Your task to perform on an android device: How much does a 2 bedroom apartment rent for in Houston? Image 0: 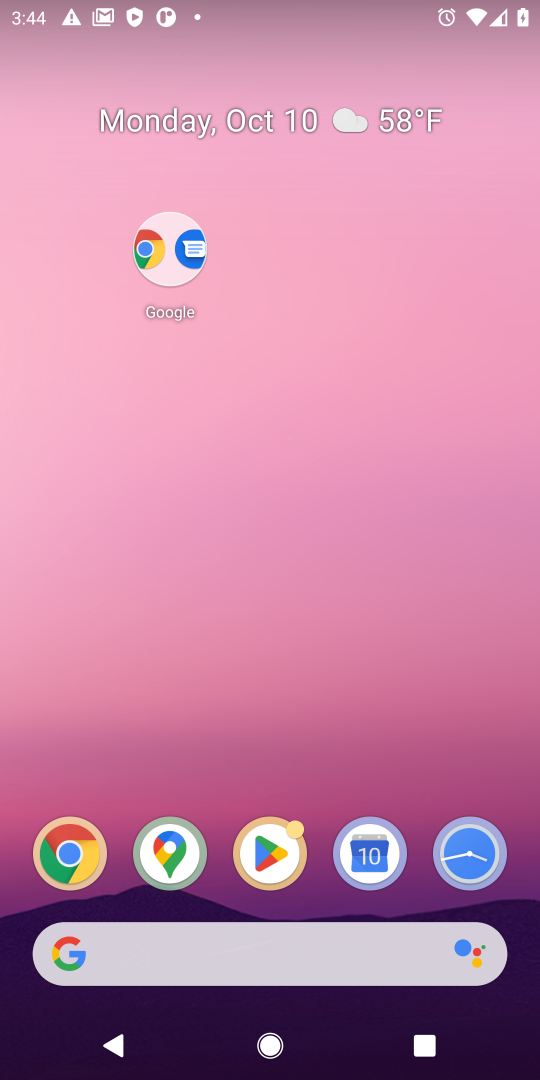
Step 0: click (73, 865)
Your task to perform on an android device: How much does a 2 bedroom apartment rent for in Houston? Image 1: 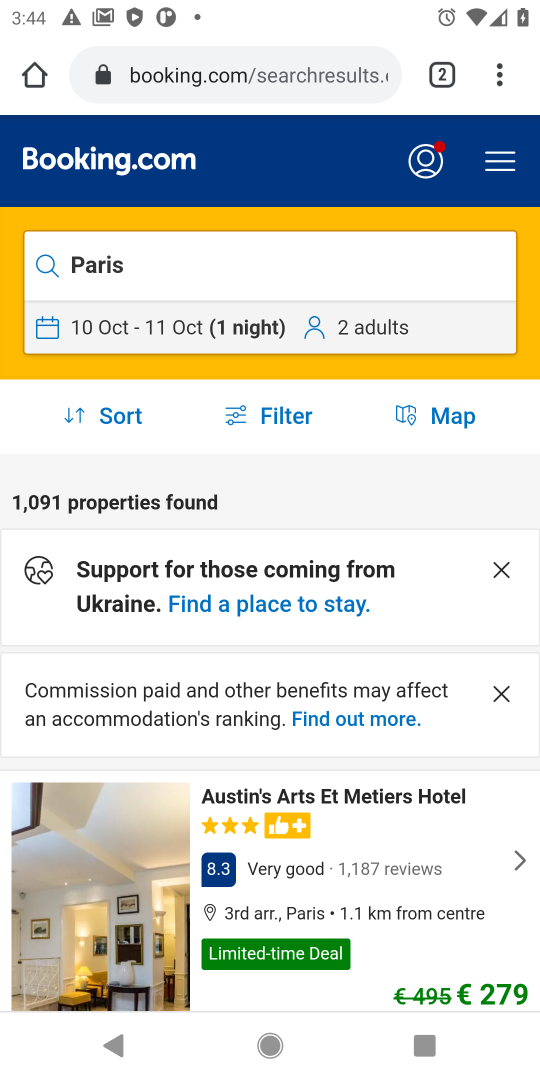
Step 1: type "How much does a 2 bedroom apartment rent for in Houston?"
Your task to perform on an android device: How much does a 2 bedroom apartment rent for in Houston? Image 2: 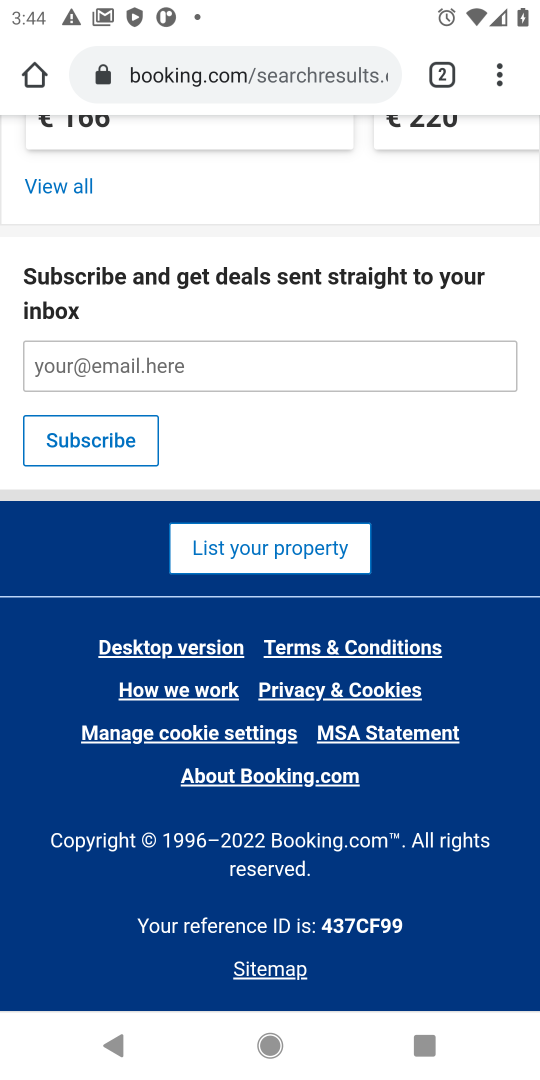
Step 2: click (179, 66)
Your task to perform on an android device: How much does a 2 bedroom apartment rent for in Houston? Image 3: 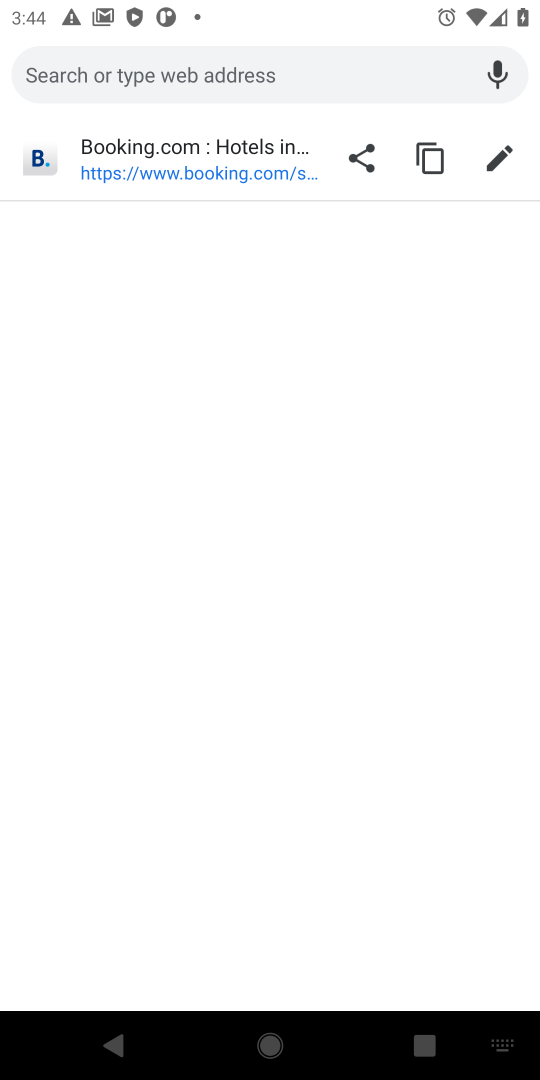
Step 3: type "How much does a 2 bedroom apartment rent for in Houston?"
Your task to perform on an android device: How much does a 2 bedroom apartment rent for in Houston? Image 4: 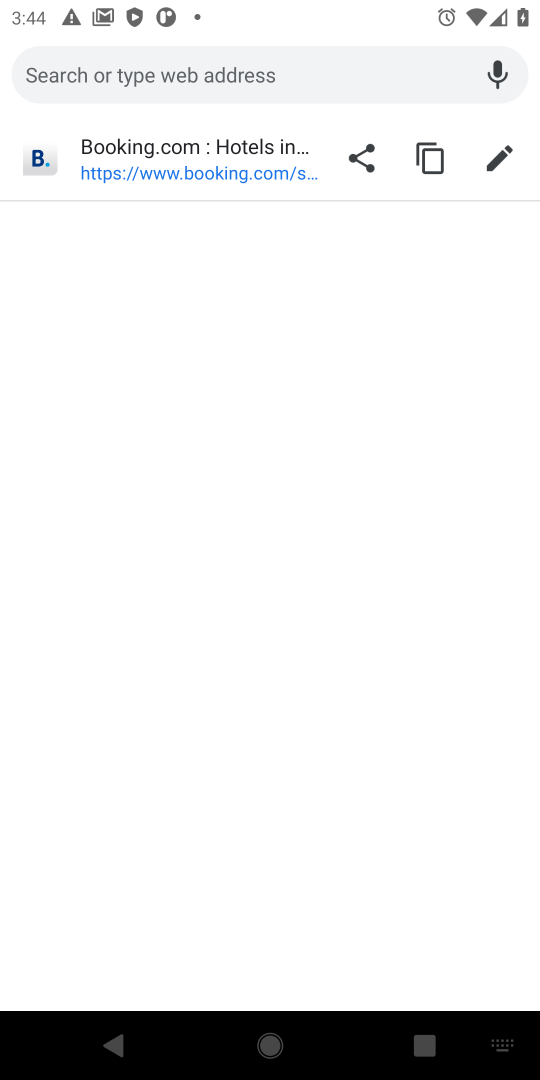
Step 4: click (235, 70)
Your task to perform on an android device: How much does a 2 bedroom apartment rent for in Houston? Image 5: 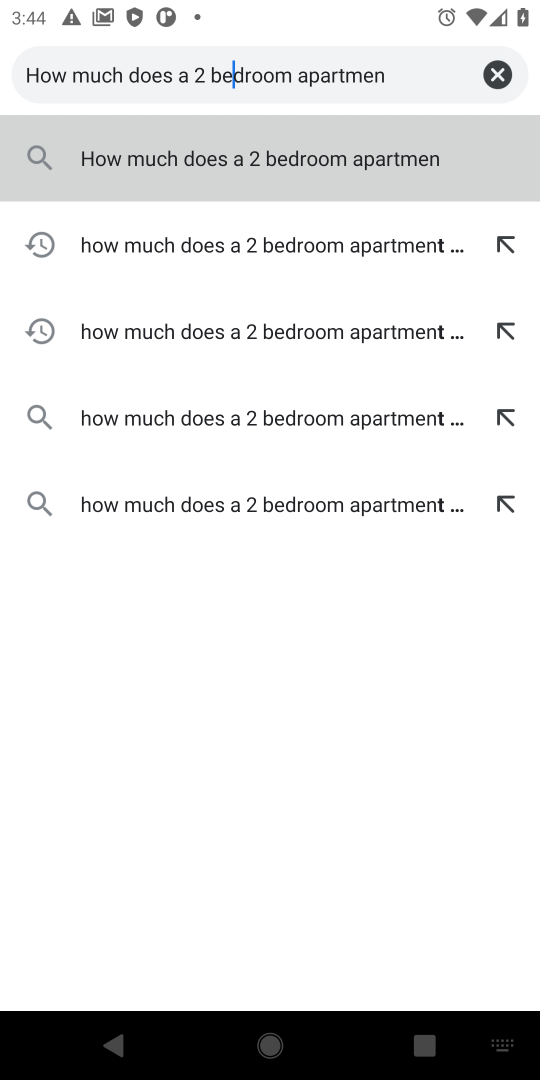
Step 5: click (262, 171)
Your task to perform on an android device: How much does a 2 bedroom apartment rent for in Houston? Image 6: 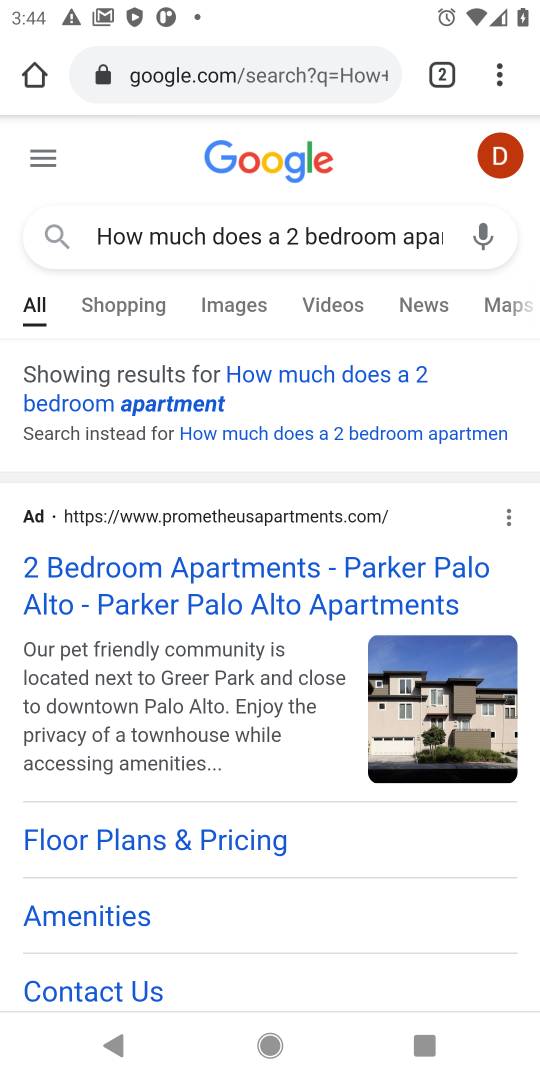
Step 6: click (276, 574)
Your task to perform on an android device: How much does a 2 bedroom apartment rent for in Houston? Image 7: 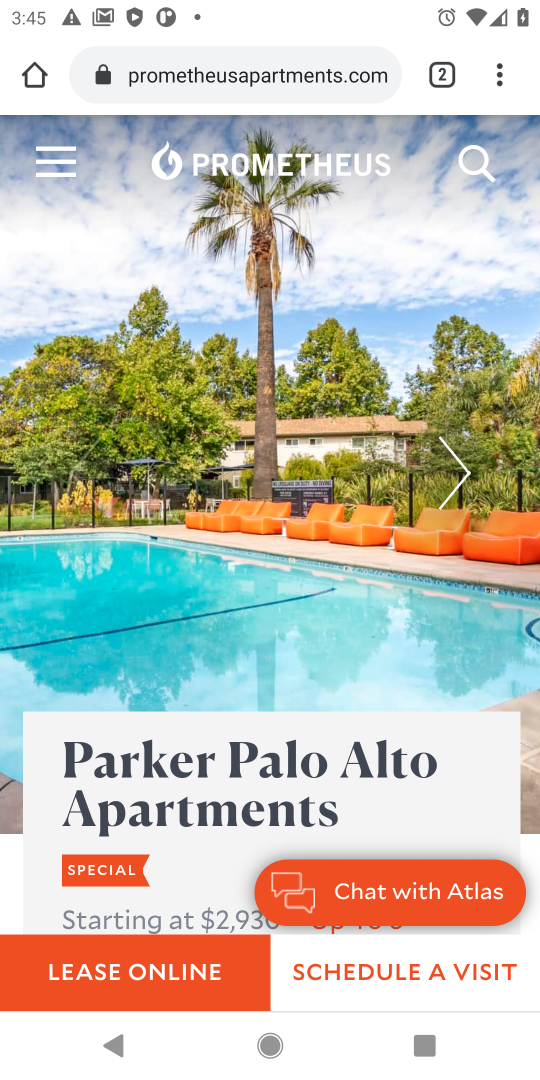
Step 7: task complete